Your task to perform on an android device: set an alarm Image 0: 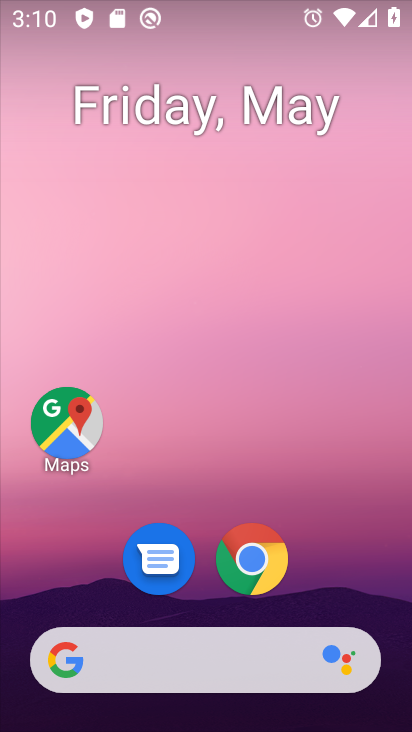
Step 0: drag from (349, 593) to (335, 58)
Your task to perform on an android device: set an alarm Image 1: 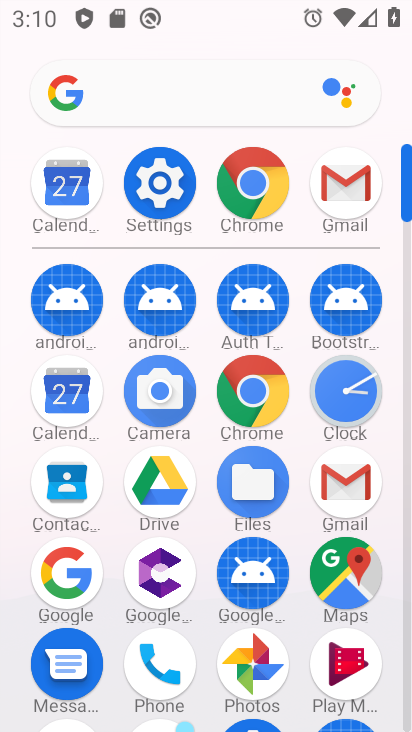
Step 1: click (367, 394)
Your task to perform on an android device: set an alarm Image 2: 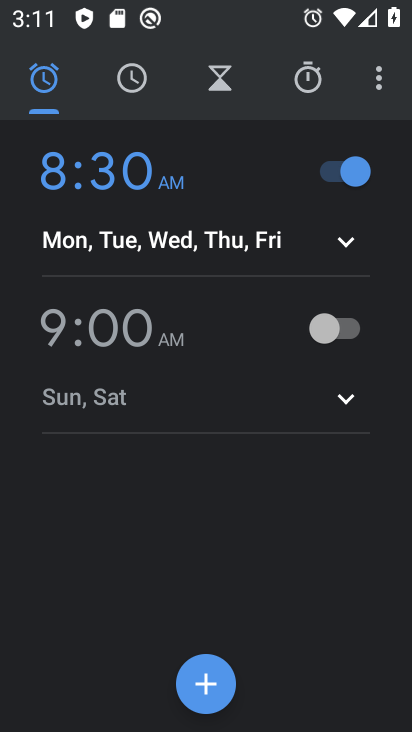
Step 2: task complete